Your task to perform on an android device: clear all cookies in the chrome app Image 0: 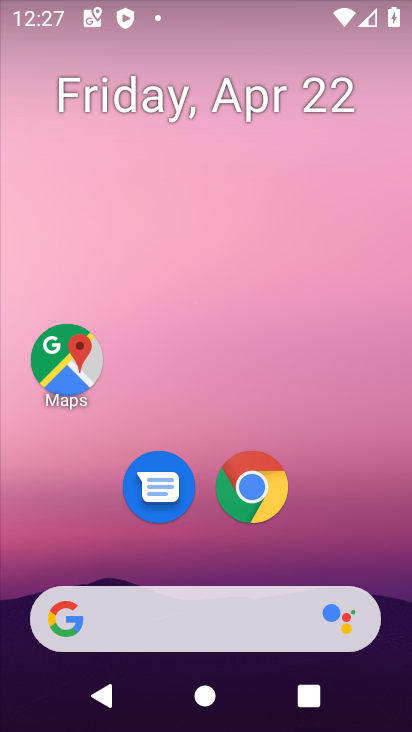
Step 0: click (235, 507)
Your task to perform on an android device: clear all cookies in the chrome app Image 1: 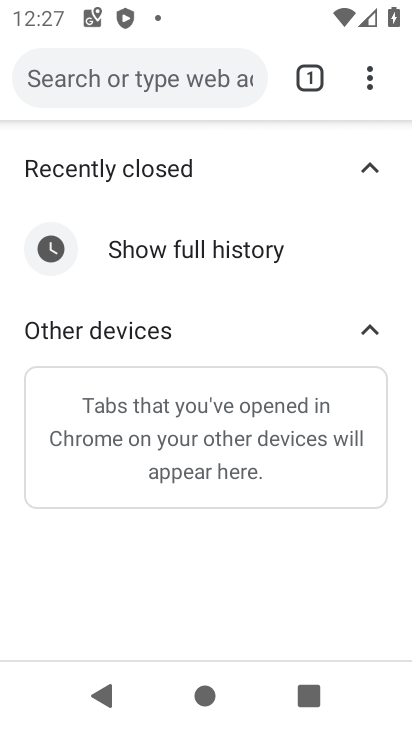
Step 1: drag from (363, 74) to (103, 430)
Your task to perform on an android device: clear all cookies in the chrome app Image 2: 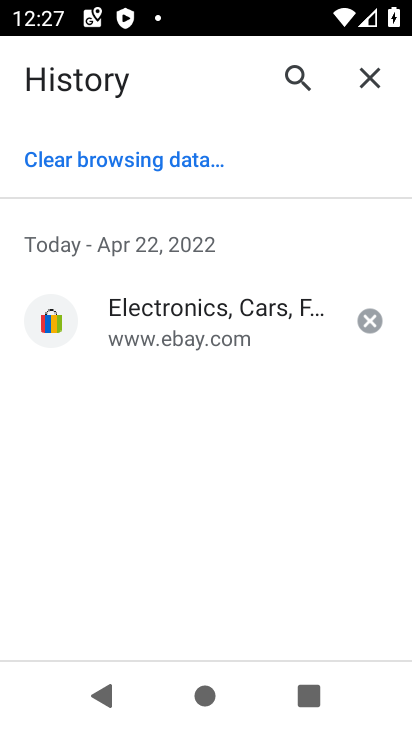
Step 2: click (102, 161)
Your task to perform on an android device: clear all cookies in the chrome app Image 3: 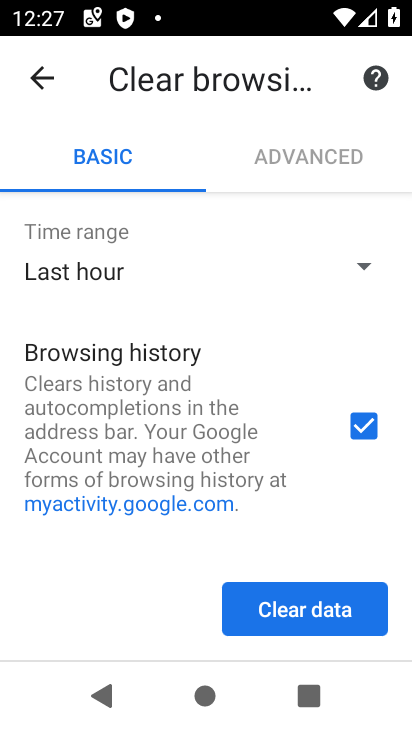
Step 3: click (267, 591)
Your task to perform on an android device: clear all cookies in the chrome app Image 4: 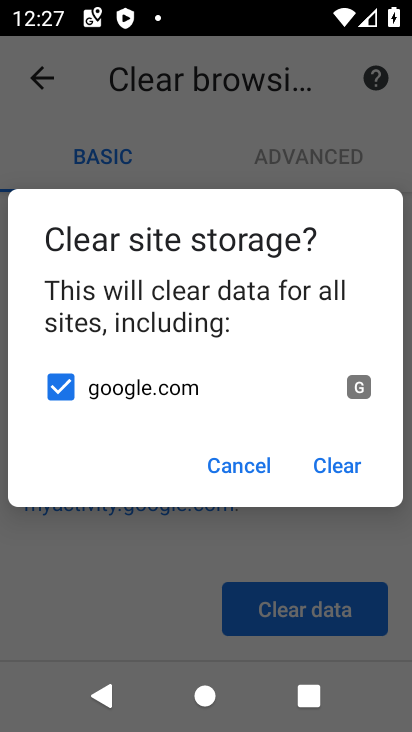
Step 4: click (345, 463)
Your task to perform on an android device: clear all cookies in the chrome app Image 5: 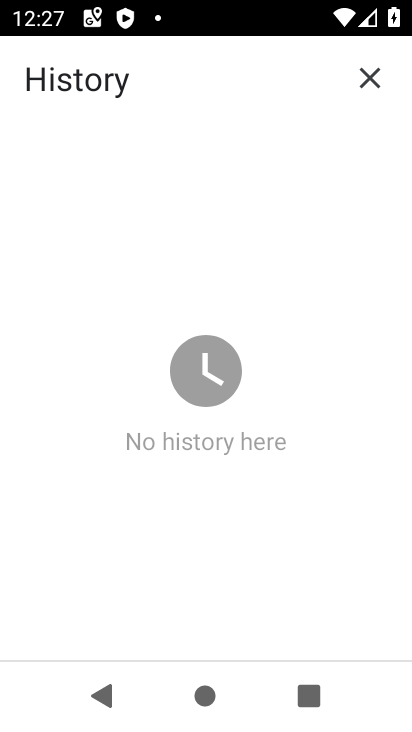
Step 5: task complete